Your task to perform on an android device: allow cookies in the chrome app Image 0: 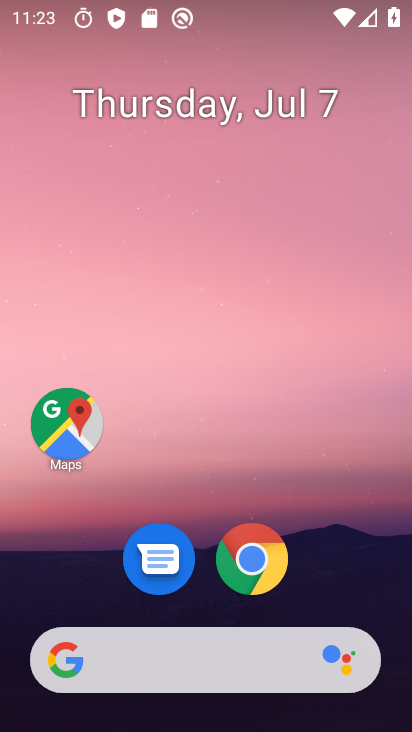
Step 0: drag from (350, 583) to (371, 88)
Your task to perform on an android device: allow cookies in the chrome app Image 1: 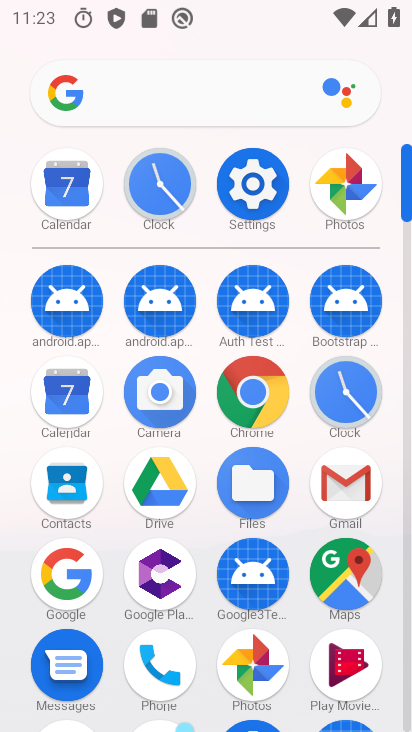
Step 1: click (263, 395)
Your task to perform on an android device: allow cookies in the chrome app Image 2: 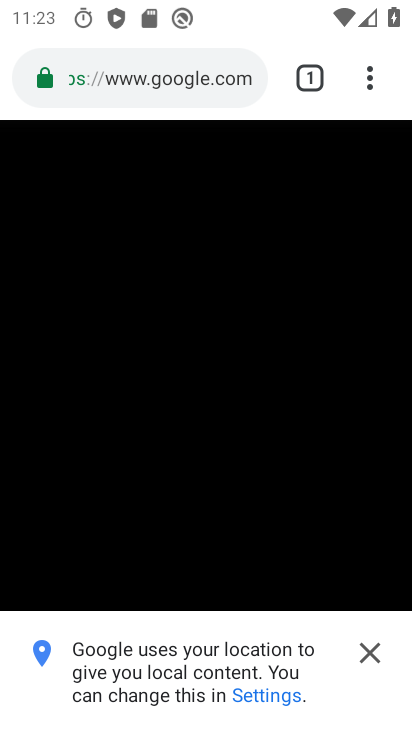
Step 2: click (369, 87)
Your task to perform on an android device: allow cookies in the chrome app Image 3: 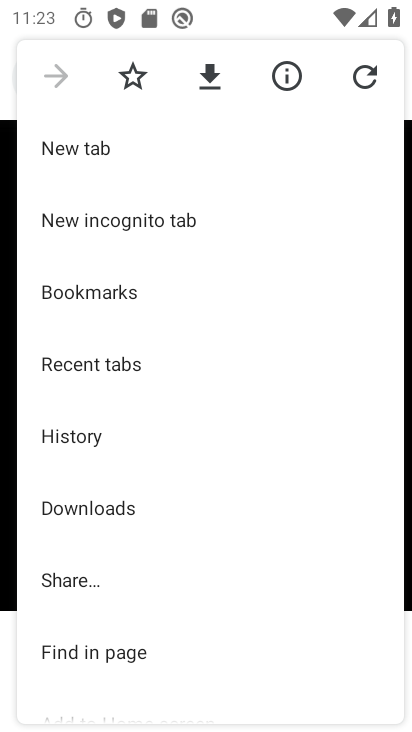
Step 3: drag from (215, 391) to (266, 144)
Your task to perform on an android device: allow cookies in the chrome app Image 4: 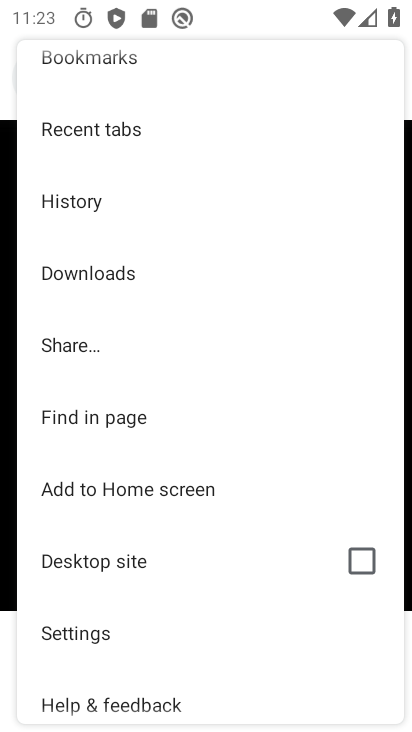
Step 4: drag from (261, 442) to (285, 290)
Your task to perform on an android device: allow cookies in the chrome app Image 5: 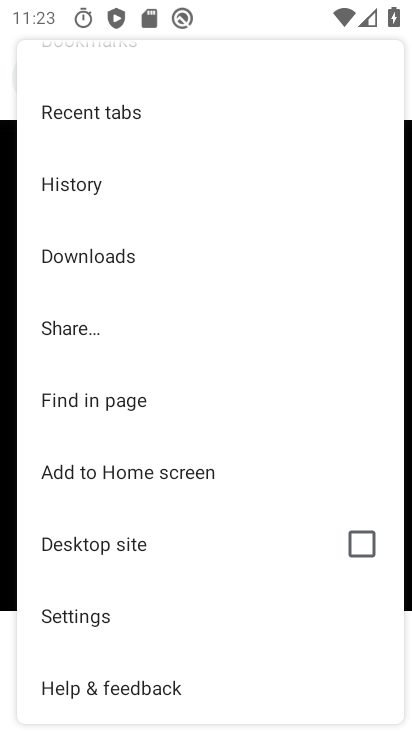
Step 5: click (135, 620)
Your task to perform on an android device: allow cookies in the chrome app Image 6: 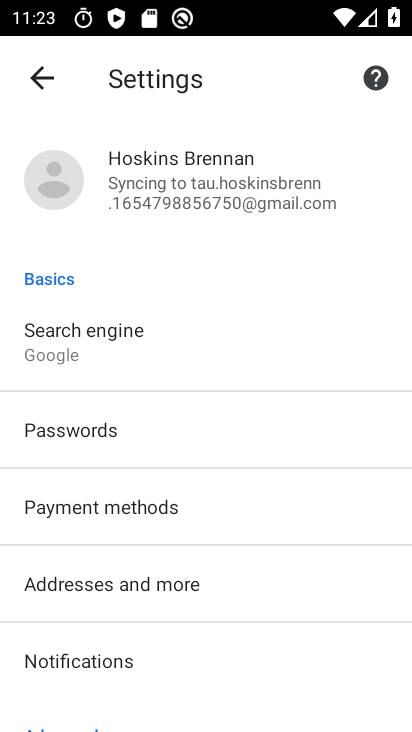
Step 6: drag from (310, 577) to (303, 328)
Your task to perform on an android device: allow cookies in the chrome app Image 7: 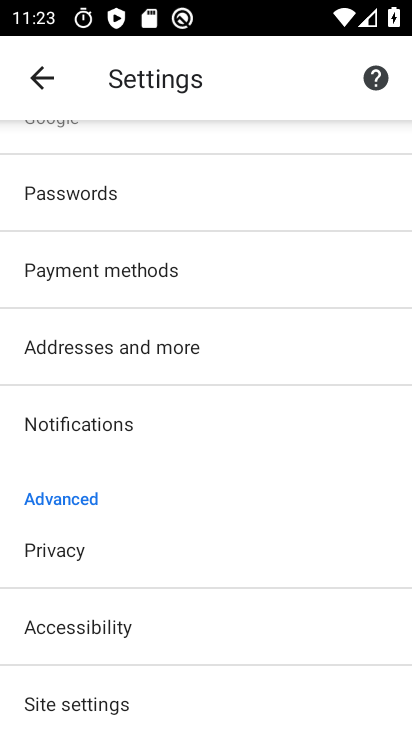
Step 7: click (240, 682)
Your task to perform on an android device: allow cookies in the chrome app Image 8: 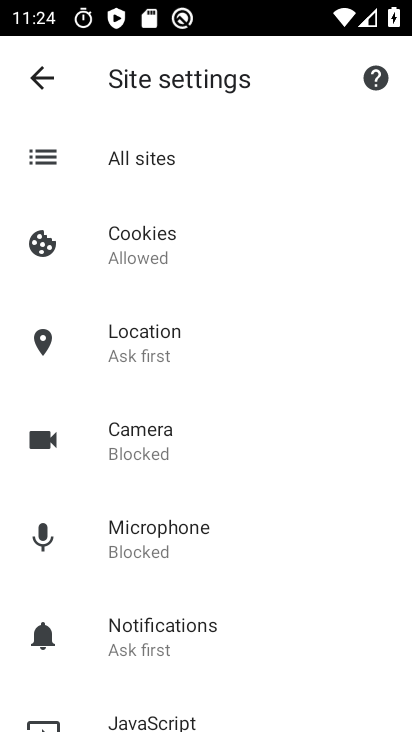
Step 8: click (236, 246)
Your task to perform on an android device: allow cookies in the chrome app Image 9: 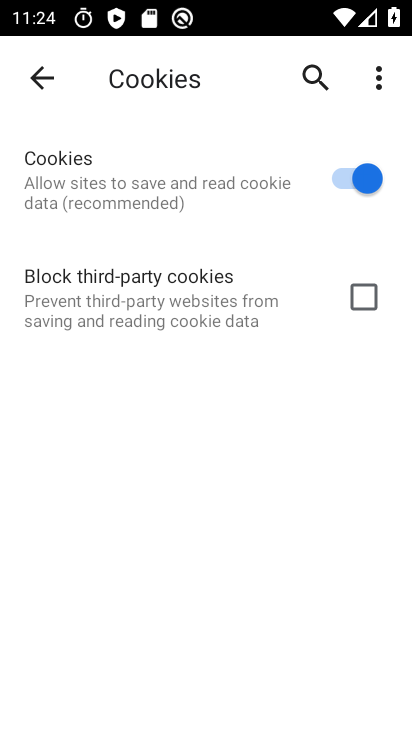
Step 9: task complete